Your task to perform on an android device: Open Youtube and go to "Your channel" Image 0: 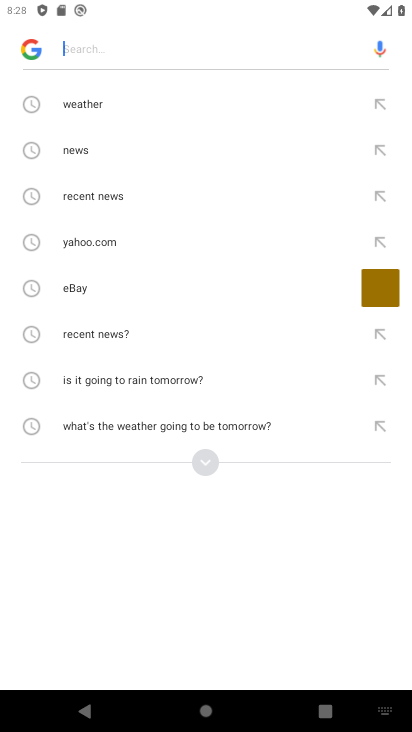
Step 0: press home button
Your task to perform on an android device: Open Youtube and go to "Your channel" Image 1: 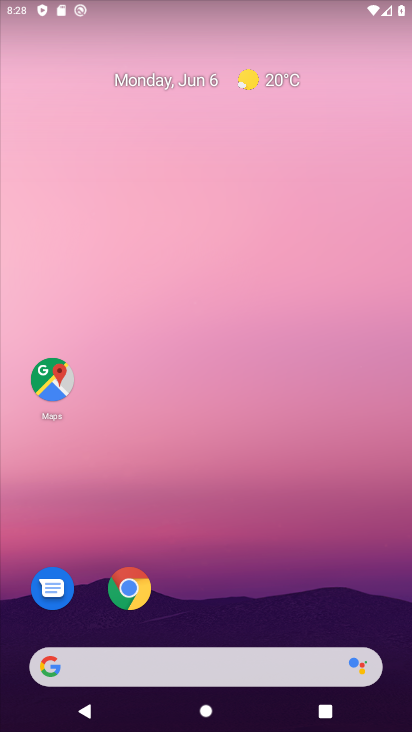
Step 1: drag from (321, 307) to (293, 37)
Your task to perform on an android device: Open Youtube and go to "Your channel" Image 2: 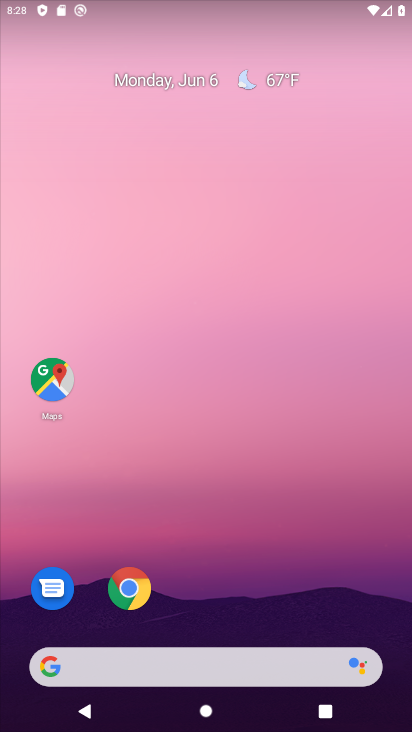
Step 2: drag from (340, 590) to (383, 77)
Your task to perform on an android device: Open Youtube and go to "Your channel" Image 3: 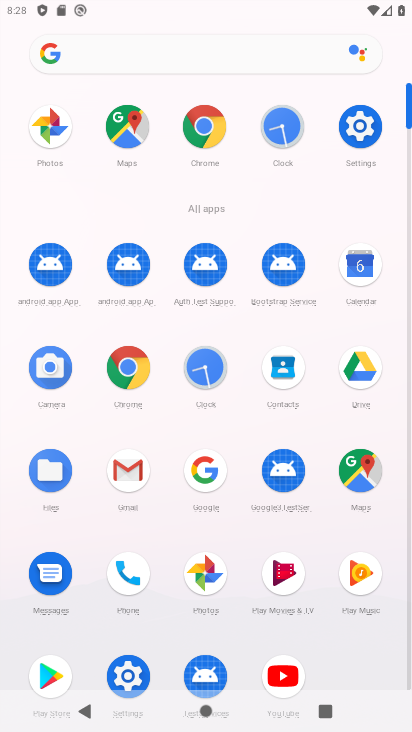
Step 3: click (287, 662)
Your task to perform on an android device: Open Youtube and go to "Your channel" Image 4: 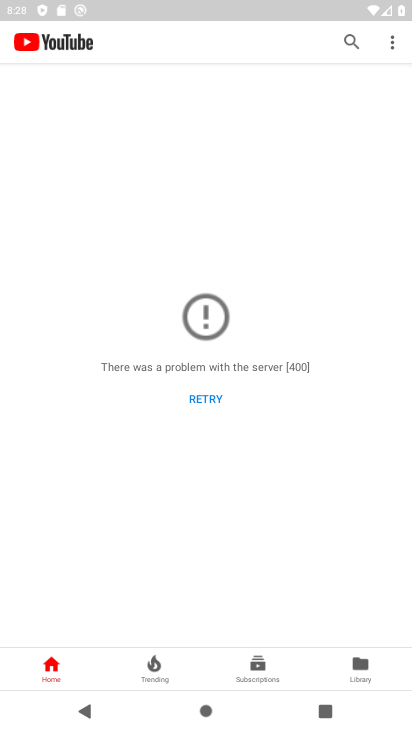
Step 4: click (399, 51)
Your task to perform on an android device: Open Youtube and go to "Your channel" Image 5: 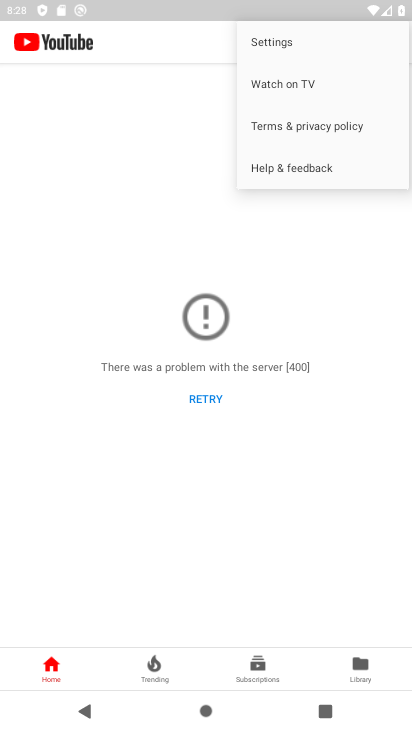
Step 5: click (263, 46)
Your task to perform on an android device: Open Youtube and go to "Your channel" Image 6: 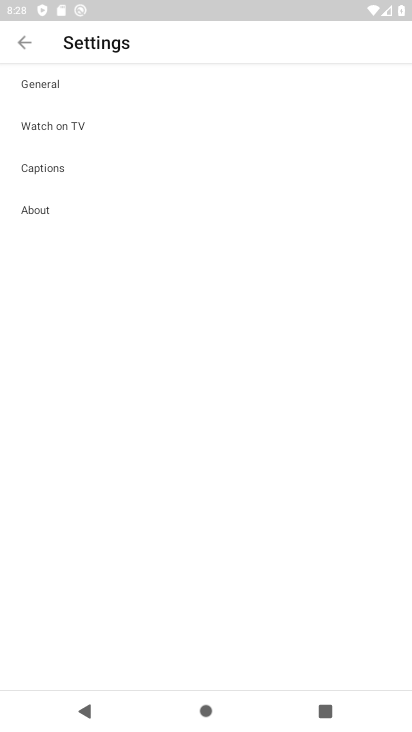
Step 6: task complete